Your task to perform on an android device: toggle pop-ups in chrome Image 0: 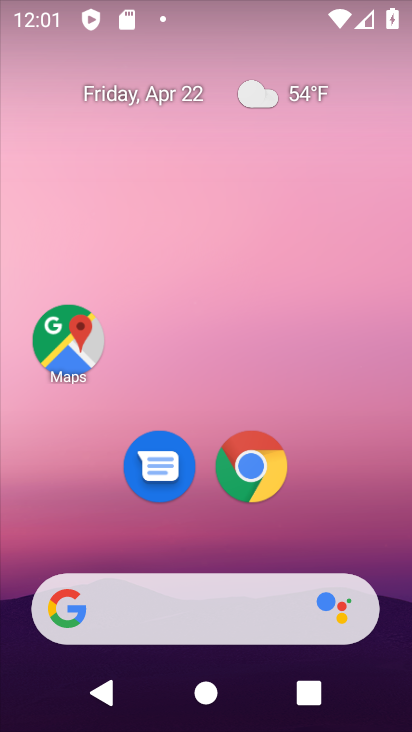
Step 0: click (259, 475)
Your task to perform on an android device: toggle pop-ups in chrome Image 1: 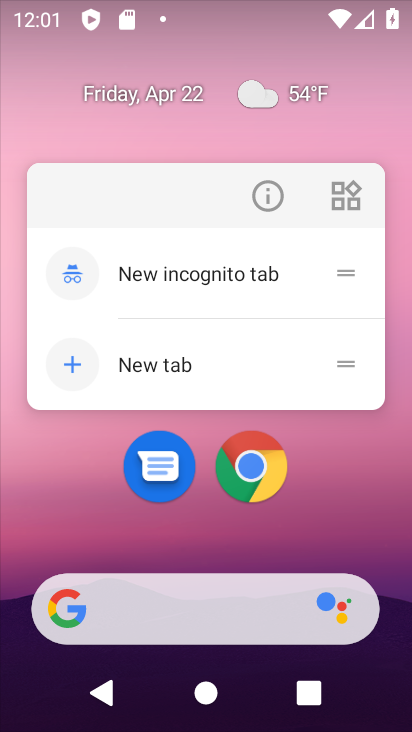
Step 1: click (240, 484)
Your task to perform on an android device: toggle pop-ups in chrome Image 2: 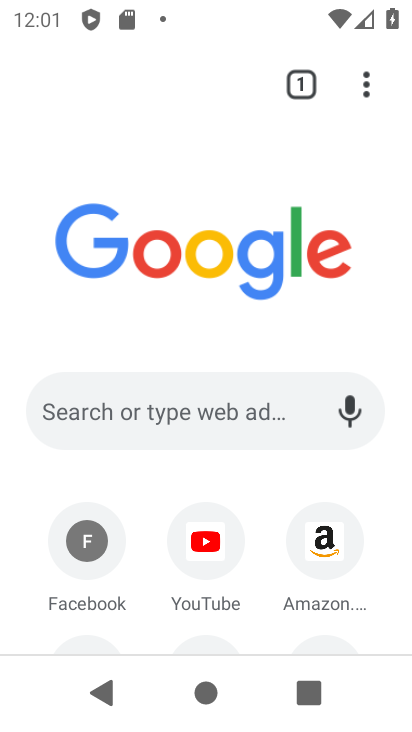
Step 2: drag from (365, 83) to (122, 516)
Your task to perform on an android device: toggle pop-ups in chrome Image 3: 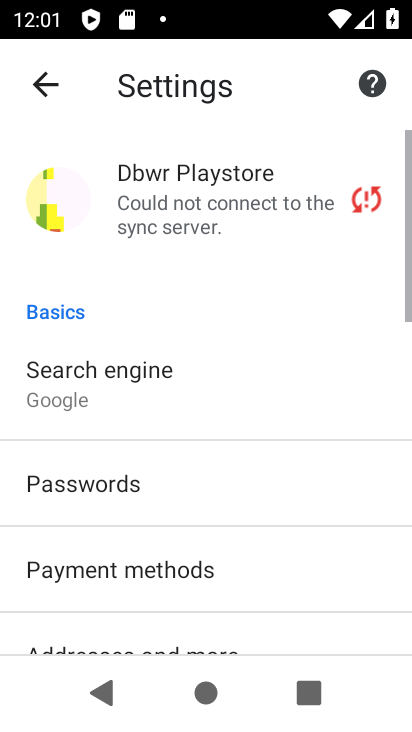
Step 3: drag from (307, 614) to (261, 168)
Your task to perform on an android device: toggle pop-ups in chrome Image 4: 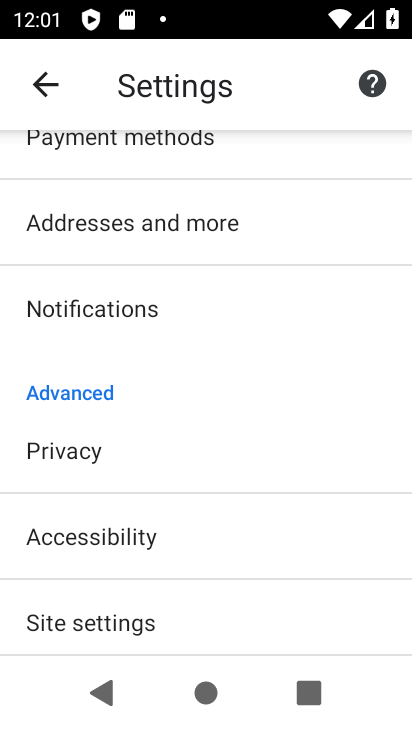
Step 4: click (95, 626)
Your task to perform on an android device: toggle pop-ups in chrome Image 5: 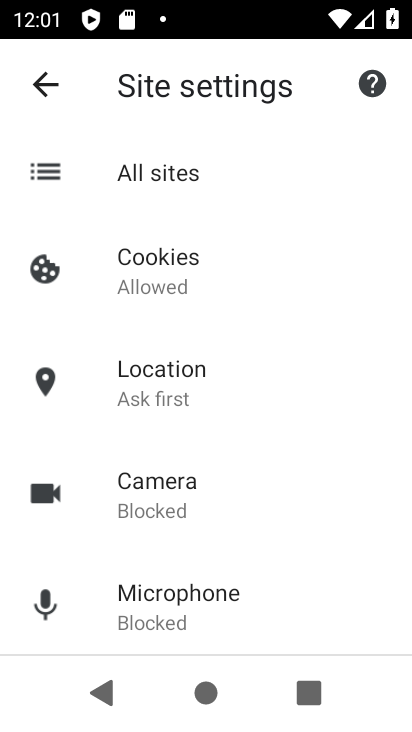
Step 5: drag from (253, 585) to (253, 204)
Your task to perform on an android device: toggle pop-ups in chrome Image 6: 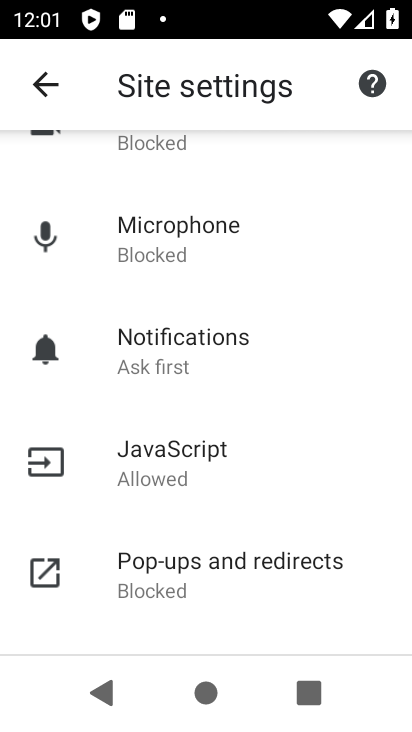
Step 6: click (154, 584)
Your task to perform on an android device: toggle pop-ups in chrome Image 7: 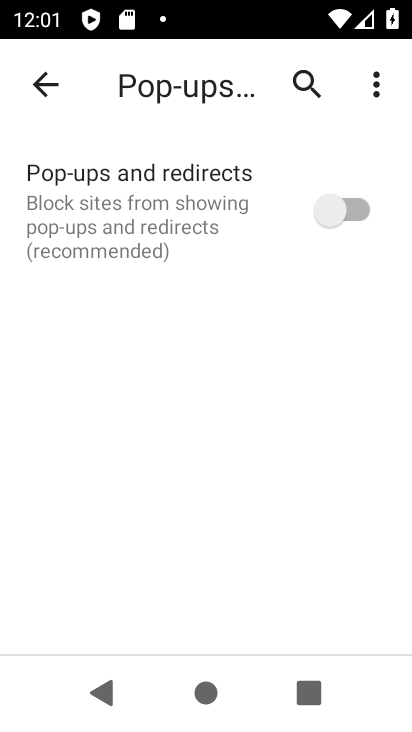
Step 7: click (356, 209)
Your task to perform on an android device: toggle pop-ups in chrome Image 8: 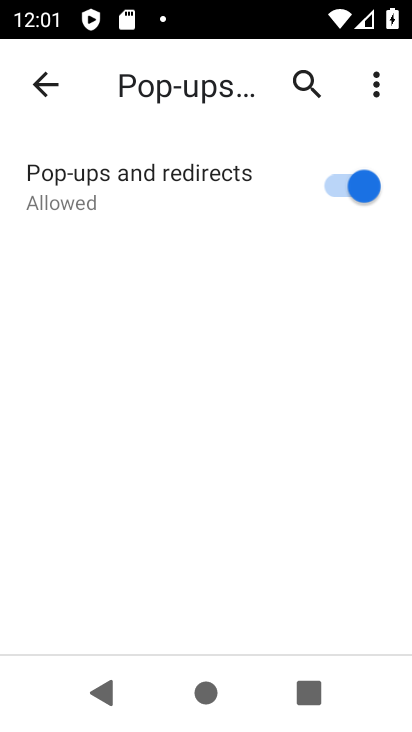
Step 8: task complete